Your task to perform on an android device: turn off notifications in google photos Image 0: 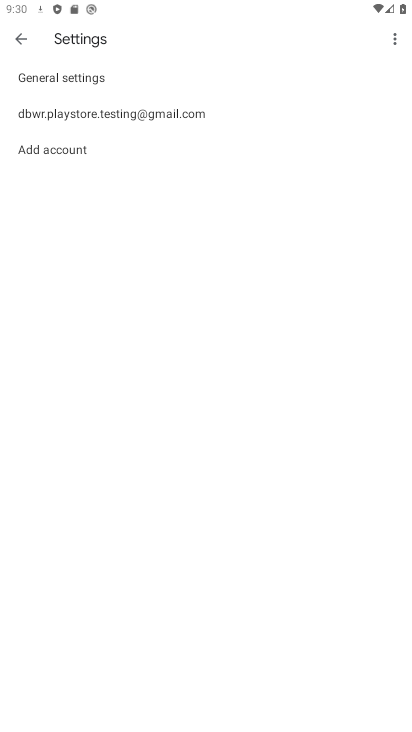
Step 0: press home button
Your task to perform on an android device: turn off notifications in google photos Image 1: 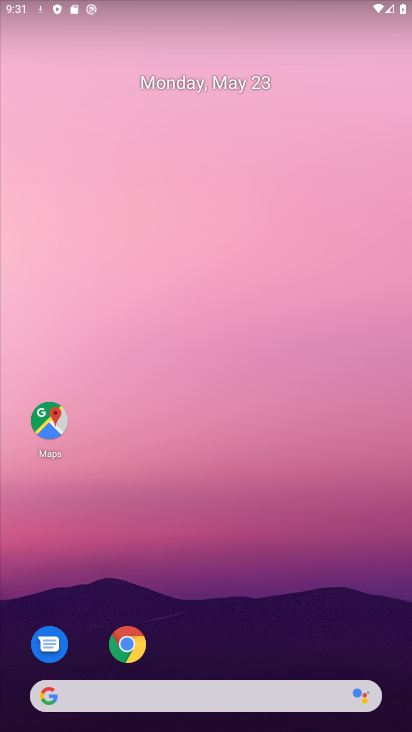
Step 1: drag from (265, 713) to (250, 312)
Your task to perform on an android device: turn off notifications in google photos Image 2: 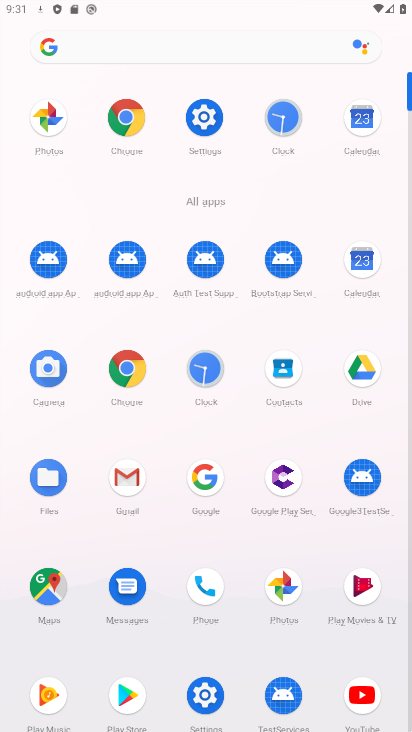
Step 2: click (275, 577)
Your task to perform on an android device: turn off notifications in google photos Image 3: 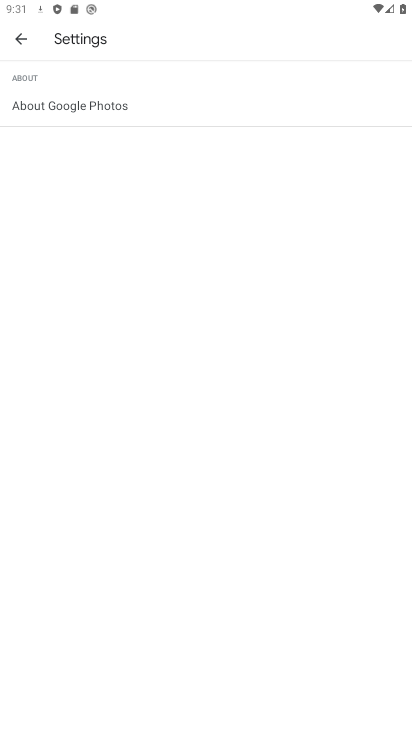
Step 3: click (28, 34)
Your task to perform on an android device: turn off notifications in google photos Image 4: 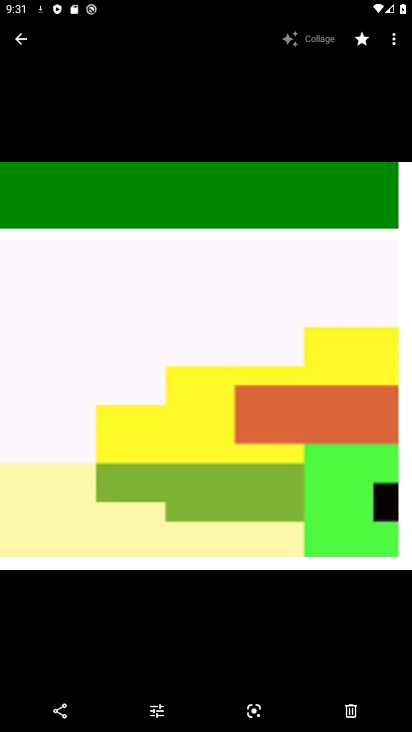
Step 4: click (28, 44)
Your task to perform on an android device: turn off notifications in google photos Image 5: 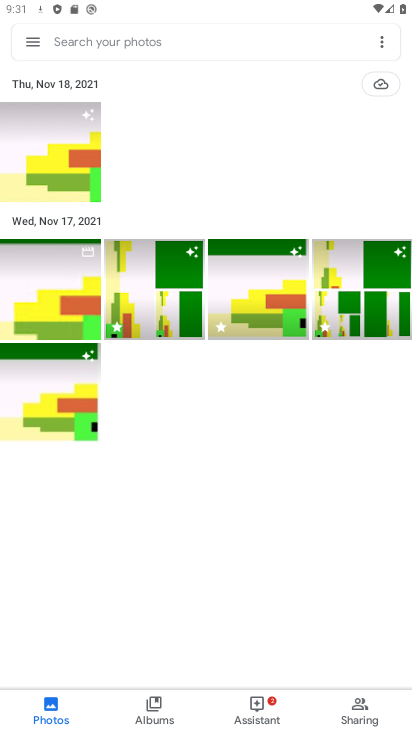
Step 5: click (32, 35)
Your task to perform on an android device: turn off notifications in google photos Image 6: 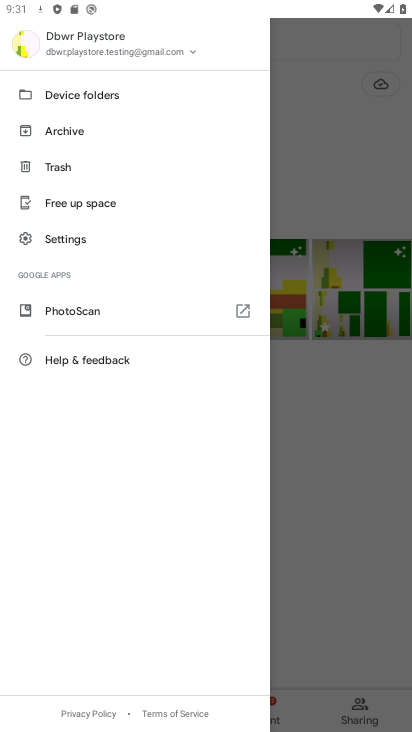
Step 6: click (74, 243)
Your task to perform on an android device: turn off notifications in google photos Image 7: 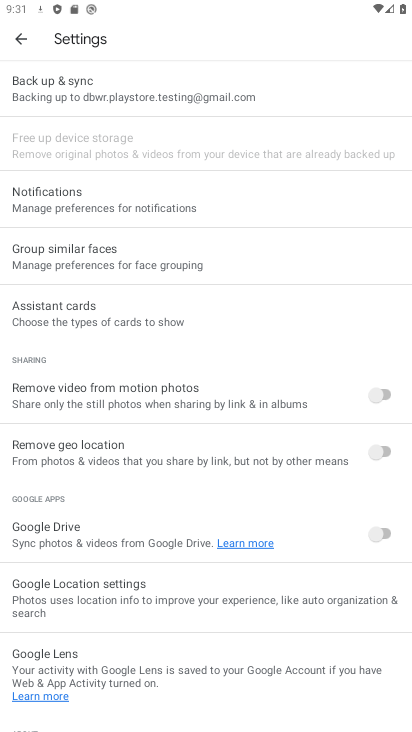
Step 7: click (99, 210)
Your task to perform on an android device: turn off notifications in google photos Image 8: 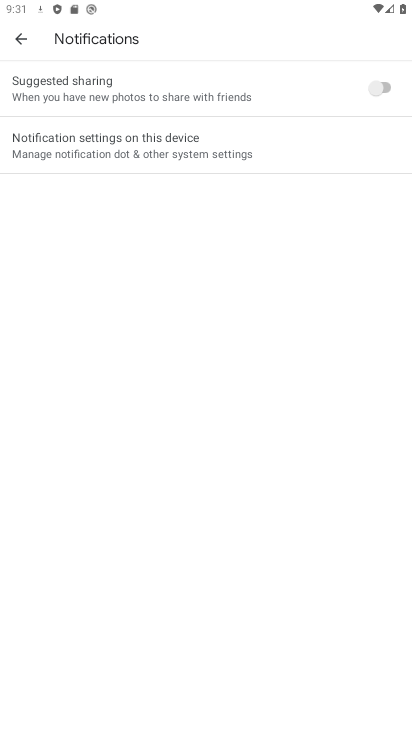
Step 8: click (175, 144)
Your task to perform on an android device: turn off notifications in google photos Image 9: 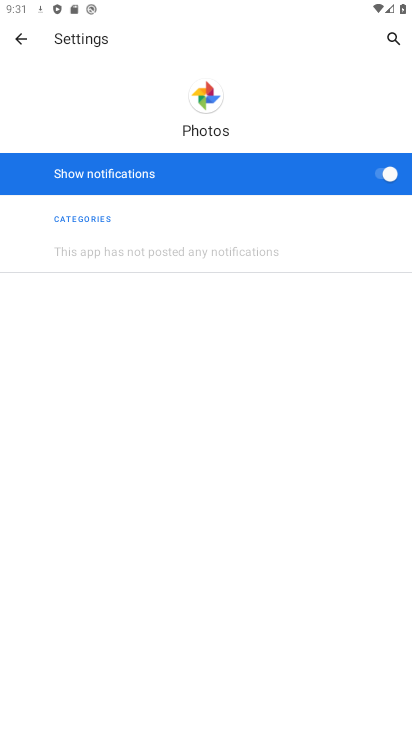
Step 9: click (375, 181)
Your task to perform on an android device: turn off notifications in google photos Image 10: 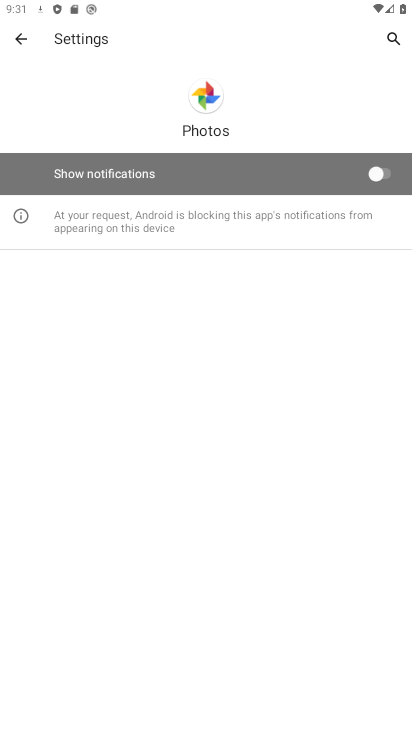
Step 10: task complete